Your task to perform on an android device: check out phone information Image 0: 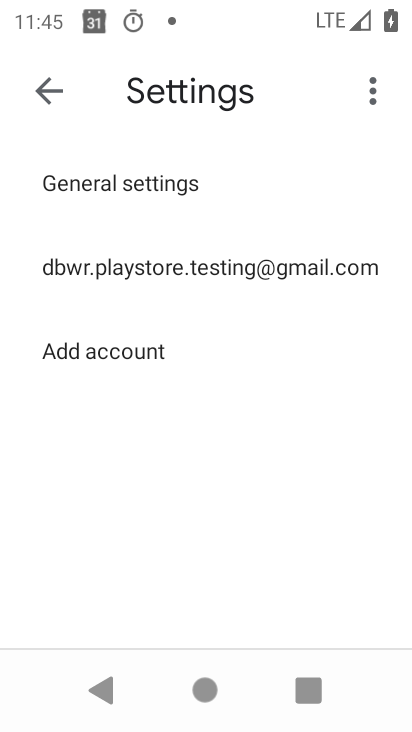
Step 0: press home button
Your task to perform on an android device: check out phone information Image 1: 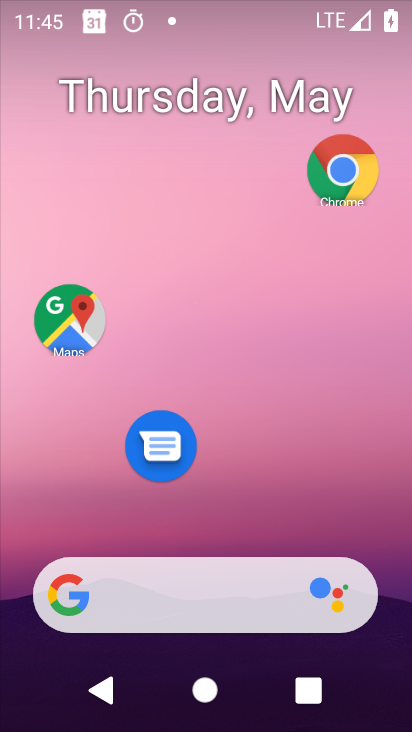
Step 1: drag from (277, 609) to (321, 7)
Your task to perform on an android device: check out phone information Image 2: 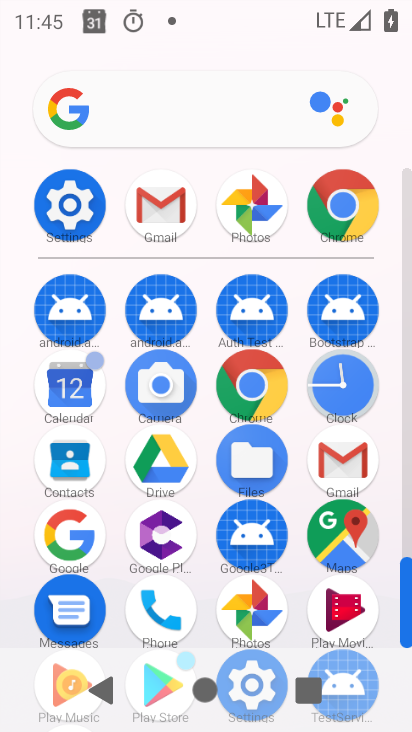
Step 2: drag from (297, 640) to (298, 386)
Your task to perform on an android device: check out phone information Image 3: 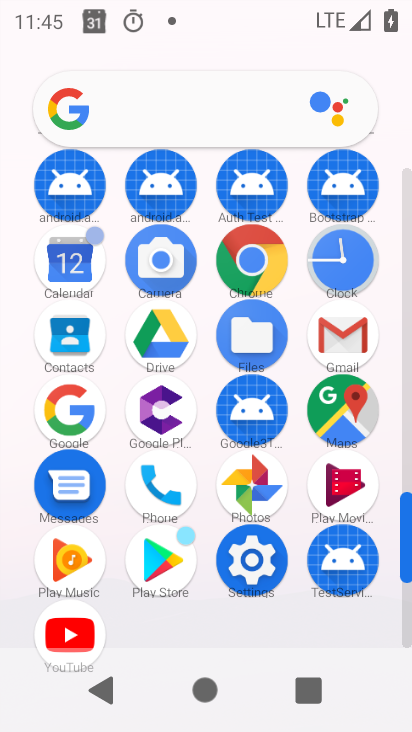
Step 3: click (258, 524)
Your task to perform on an android device: check out phone information Image 4: 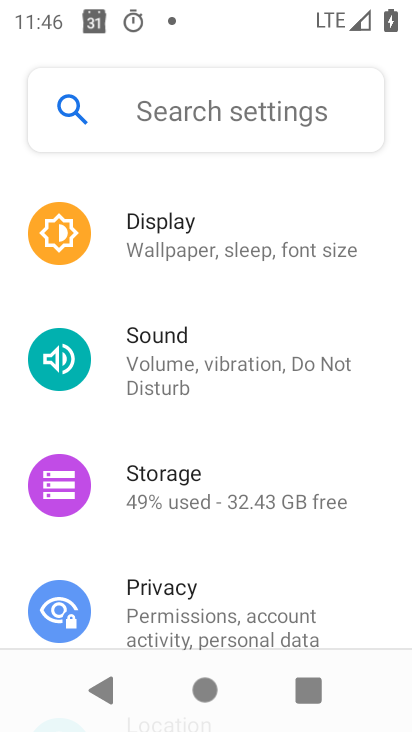
Step 4: drag from (265, 636) to (249, 199)
Your task to perform on an android device: check out phone information Image 5: 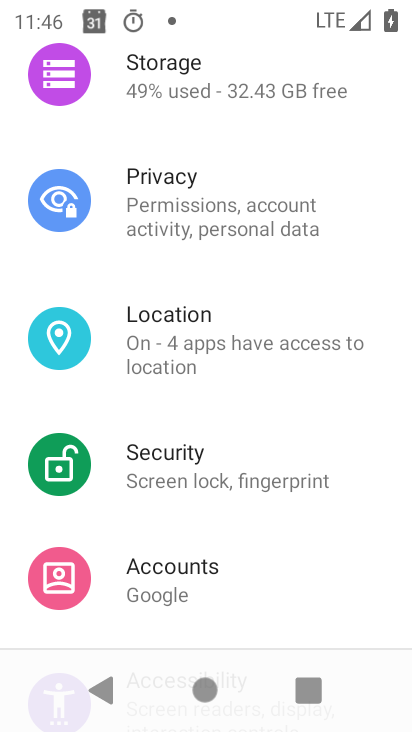
Step 5: drag from (301, 618) to (293, 127)
Your task to perform on an android device: check out phone information Image 6: 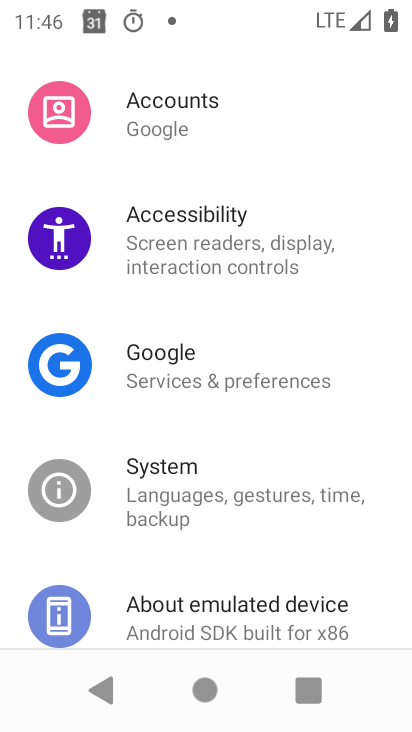
Step 6: drag from (275, 614) to (296, 363)
Your task to perform on an android device: check out phone information Image 7: 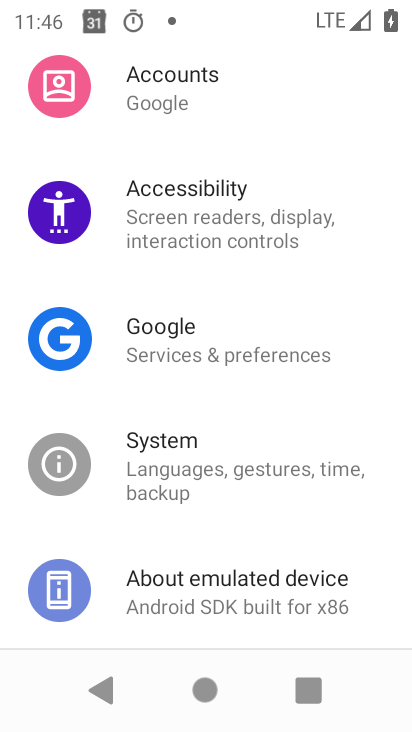
Step 7: click (288, 596)
Your task to perform on an android device: check out phone information Image 8: 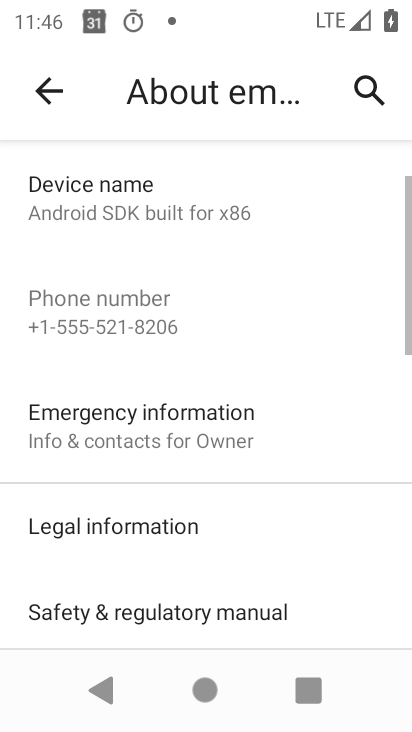
Step 8: task complete